Your task to perform on an android device: change keyboard looks Image 0: 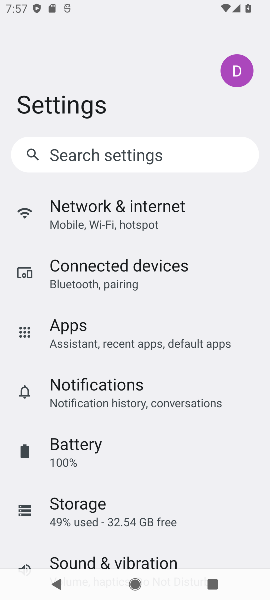
Step 0: press home button
Your task to perform on an android device: change keyboard looks Image 1: 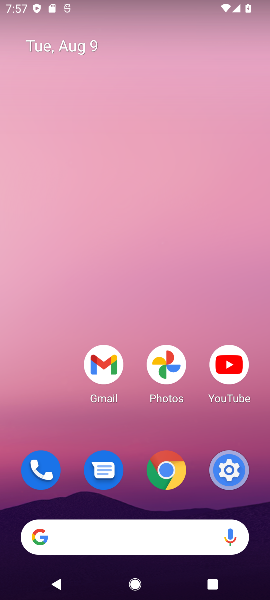
Step 1: click (226, 469)
Your task to perform on an android device: change keyboard looks Image 2: 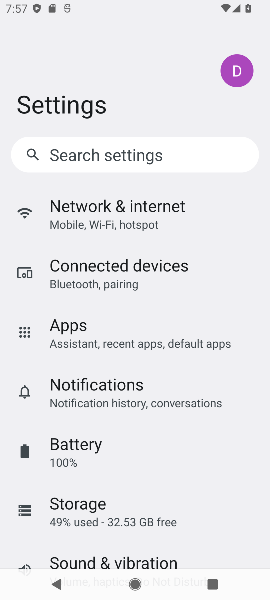
Step 2: drag from (84, 535) to (155, 417)
Your task to perform on an android device: change keyboard looks Image 3: 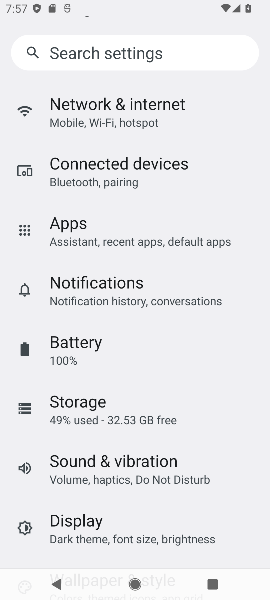
Step 3: drag from (109, 502) to (201, 324)
Your task to perform on an android device: change keyboard looks Image 4: 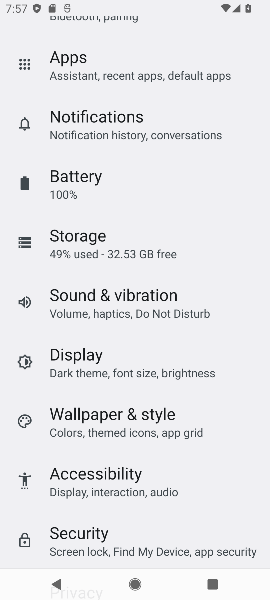
Step 4: drag from (118, 452) to (175, 367)
Your task to perform on an android device: change keyboard looks Image 5: 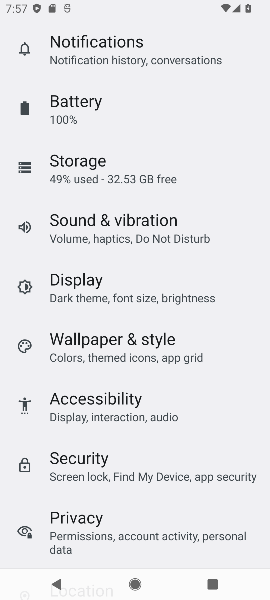
Step 5: drag from (115, 491) to (186, 399)
Your task to perform on an android device: change keyboard looks Image 6: 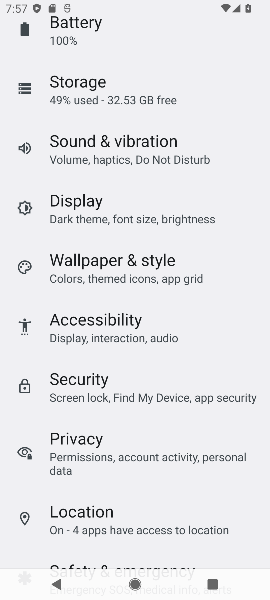
Step 6: drag from (99, 489) to (183, 395)
Your task to perform on an android device: change keyboard looks Image 7: 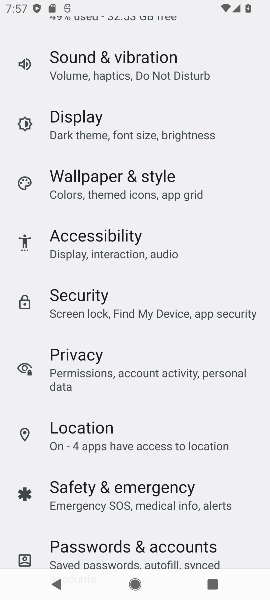
Step 7: drag from (94, 511) to (177, 416)
Your task to perform on an android device: change keyboard looks Image 8: 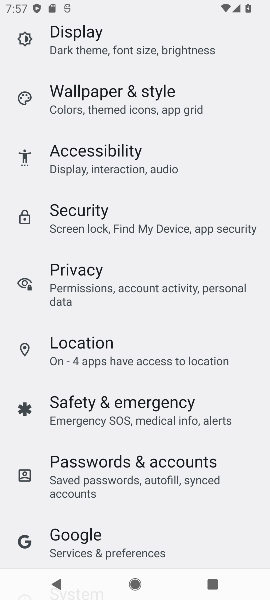
Step 8: drag from (102, 514) to (159, 433)
Your task to perform on an android device: change keyboard looks Image 9: 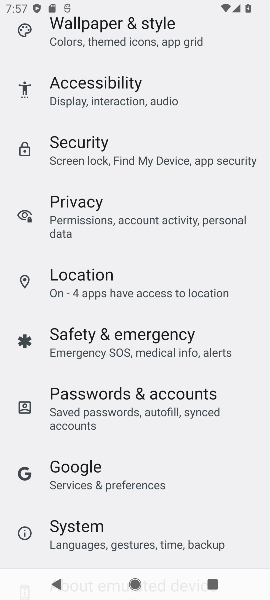
Step 9: click (80, 543)
Your task to perform on an android device: change keyboard looks Image 10: 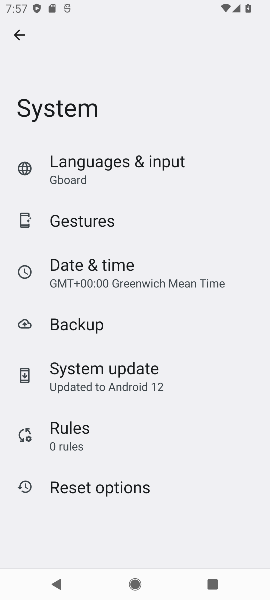
Step 10: click (111, 170)
Your task to perform on an android device: change keyboard looks Image 11: 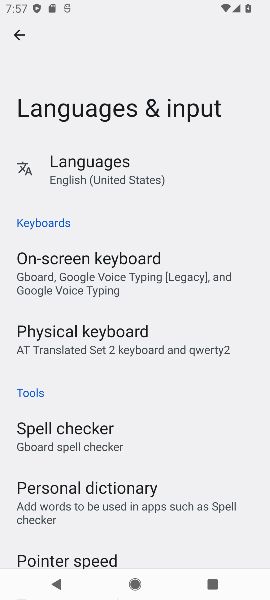
Step 11: click (95, 272)
Your task to perform on an android device: change keyboard looks Image 12: 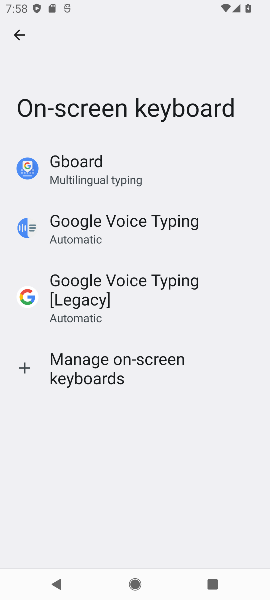
Step 12: click (110, 184)
Your task to perform on an android device: change keyboard looks Image 13: 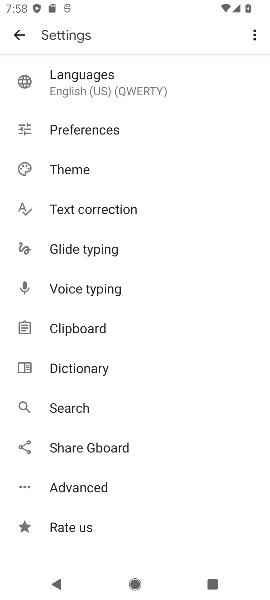
Step 13: click (75, 163)
Your task to perform on an android device: change keyboard looks Image 14: 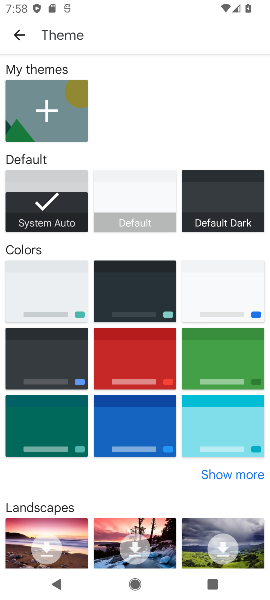
Step 14: click (227, 174)
Your task to perform on an android device: change keyboard looks Image 15: 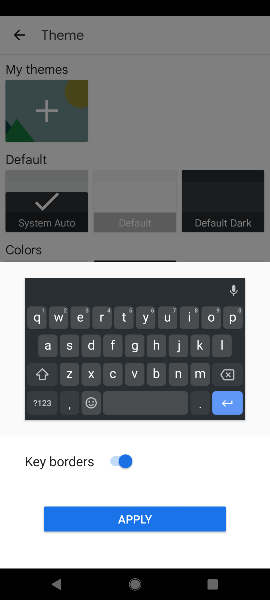
Step 15: click (132, 522)
Your task to perform on an android device: change keyboard looks Image 16: 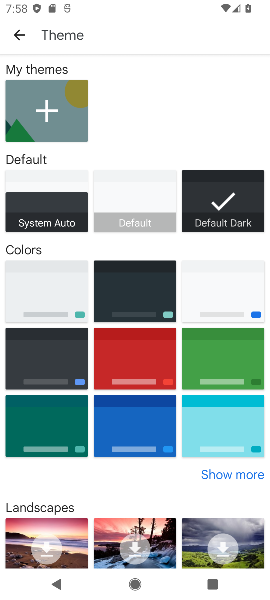
Step 16: task complete